Your task to perform on an android device: turn off javascript in the chrome app Image 0: 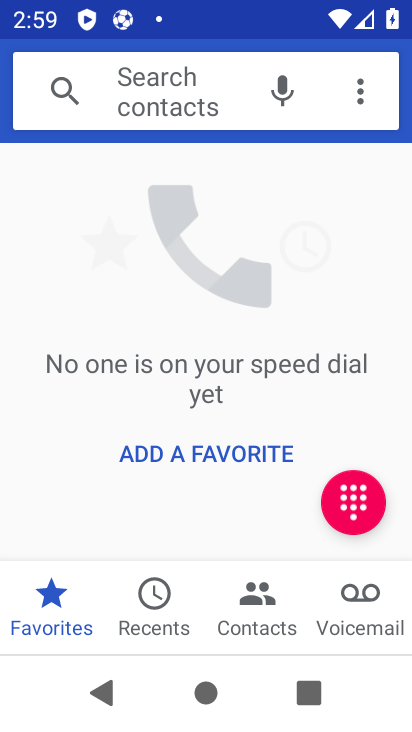
Step 0: press home button
Your task to perform on an android device: turn off javascript in the chrome app Image 1: 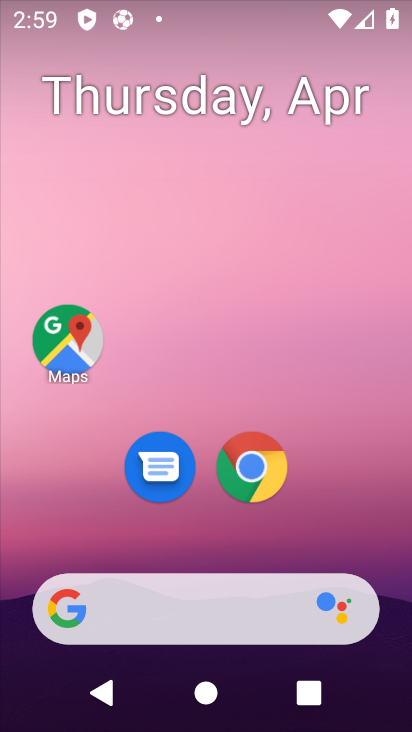
Step 1: click (266, 469)
Your task to perform on an android device: turn off javascript in the chrome app Image 2: 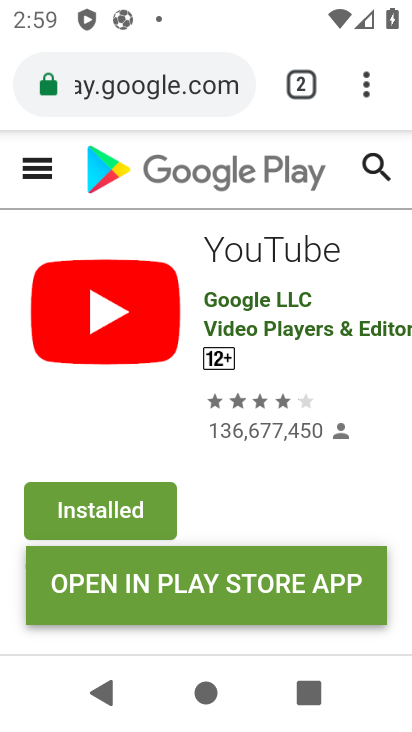
Step 2: click (362, 88)
Your task to perform on an android device: turn off javascript in the chrome app Image 3: 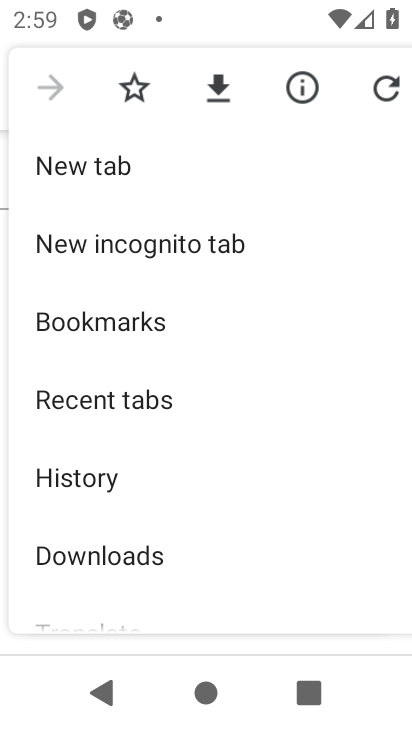
Step 3: drag from (233, 509) to (263, 147)
Your task to perform on an android device: turn off javascript in the chrome app Image 4: 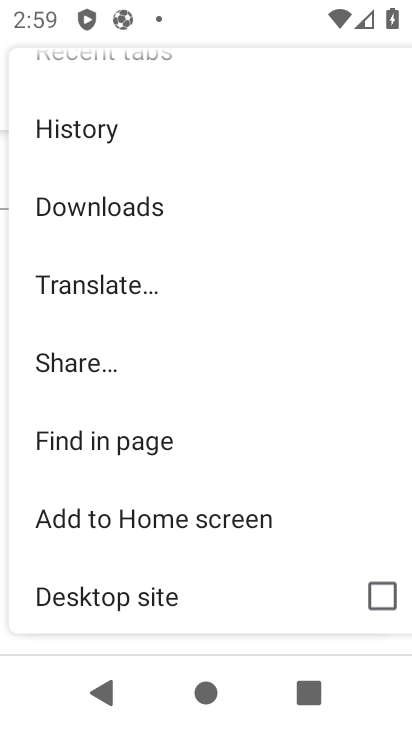
Step 4: drag from (218, 575) to (261, 141)
Your task to perform on an android device: turn off javascript in the chrome app Image 5: 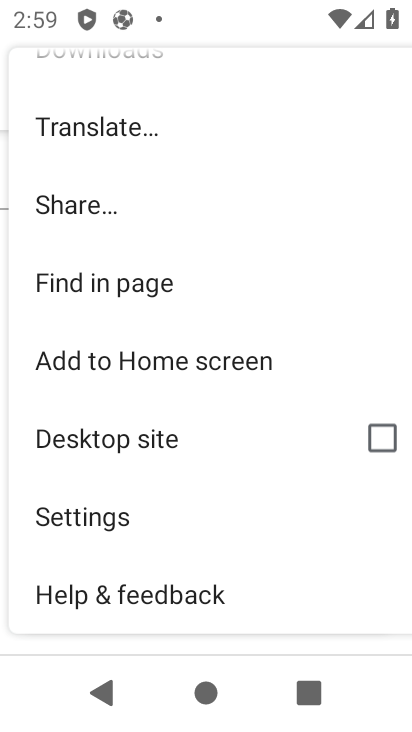
Step 5: click (177, 516)
Your task to perform on an android device: turn off javascript in the chrome app Image 6: 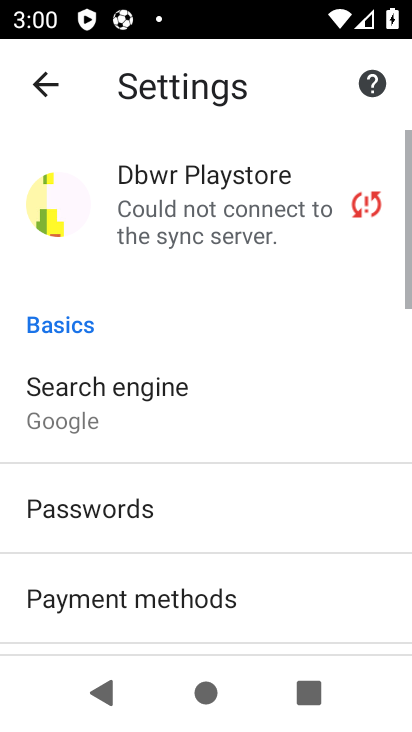
Step 6: drag from (220, 528) to (287, 165)
Your task to perform on an android device: turn off javascript in the chrome app Image 7: 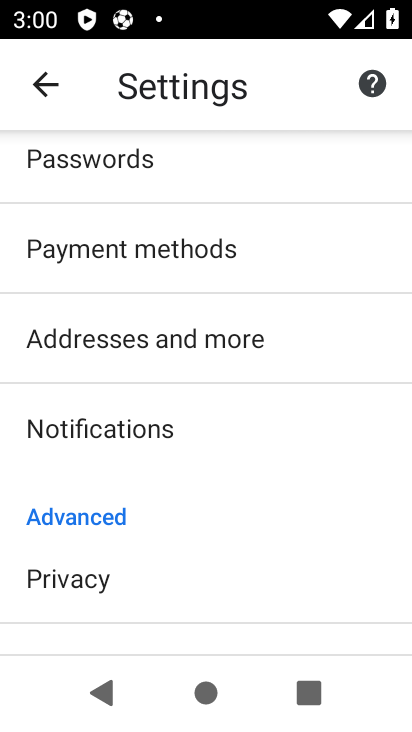
Step 7: drag from (244, 513) to (267, 184)
Your task to perform on an android device: turn off javascript in the chrome app Image 8: 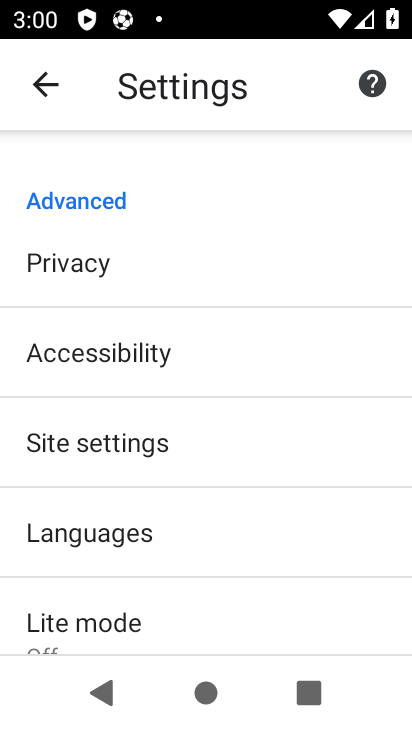
Step 8: drag from (232, 513) to (238, 240)
Your task to perform on an android device: turn off javascript in the chrome app Image 9: 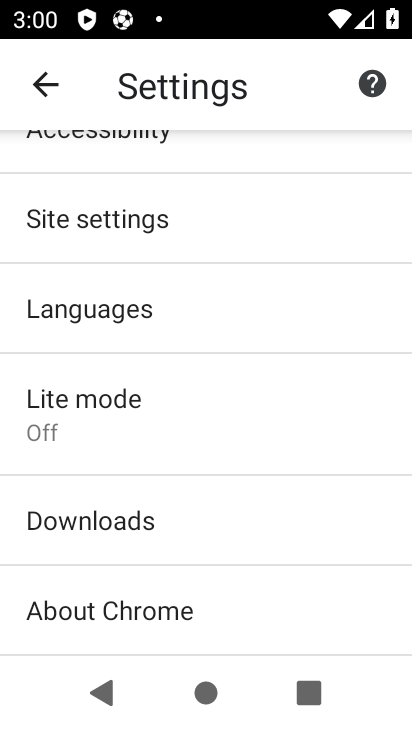
Step 9: click (206, 218)
Your task to perform on an android device: turn off javascript in the chrome app Image 10: 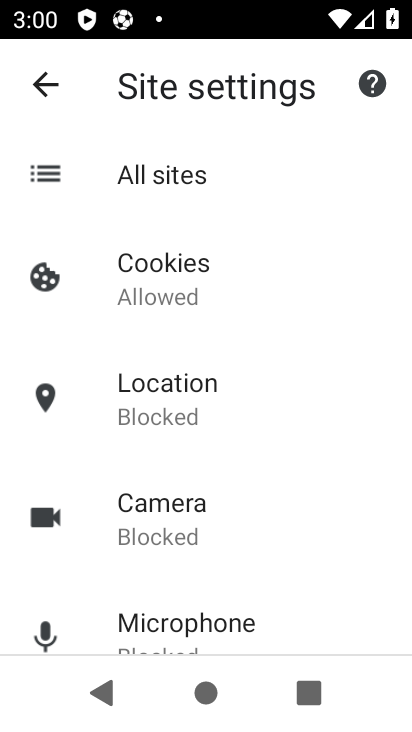
Step 10: drag from (255, 538) to (274, 162)
Your task to perform on an android device: turn off javascript in the chrome app Image 11: 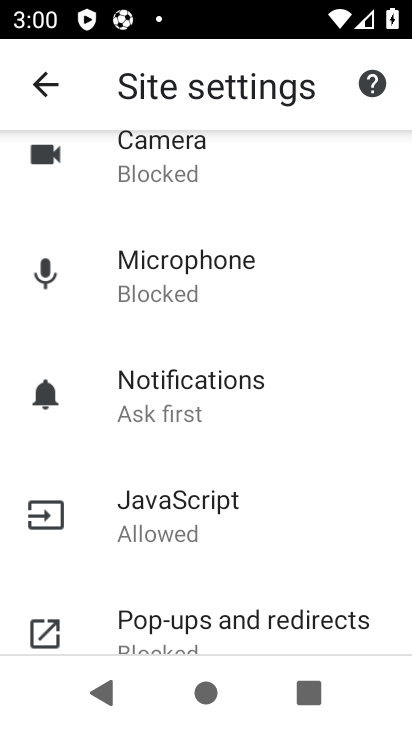
Step 11: click (227, 515)
Your task to perform on an android device: turn off javascript in the chrome app Image 12: 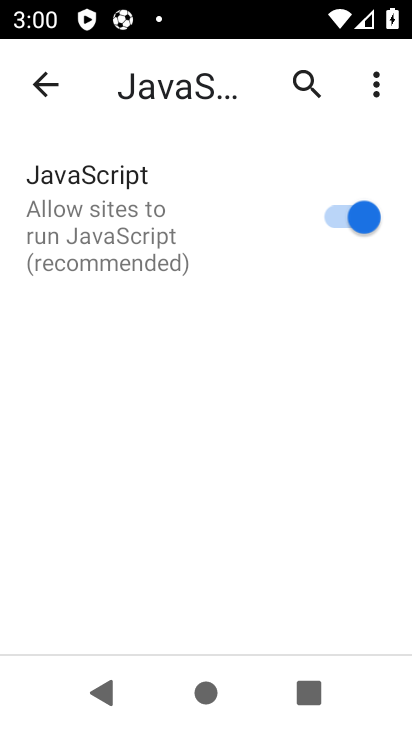
Step 12: click (335, 210)
Your task to perform on an android device: turn off javascript in the chrome app Image 13: 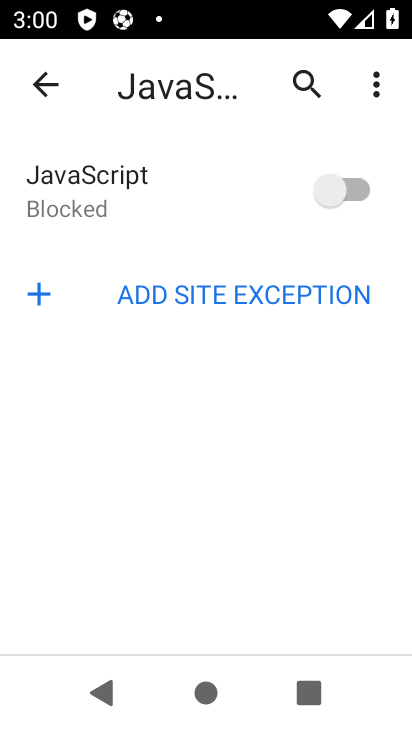
Step 13: task complete